Your task to perform on an android device: Open Chrome and go to the settings page Image 0: 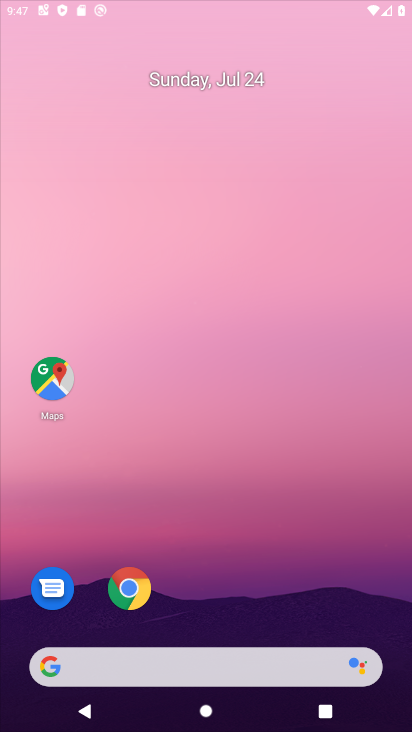
Step 0: click (254, 436)
Your task to perform on an android device: Open Chrome and go to the settings page Image 1: 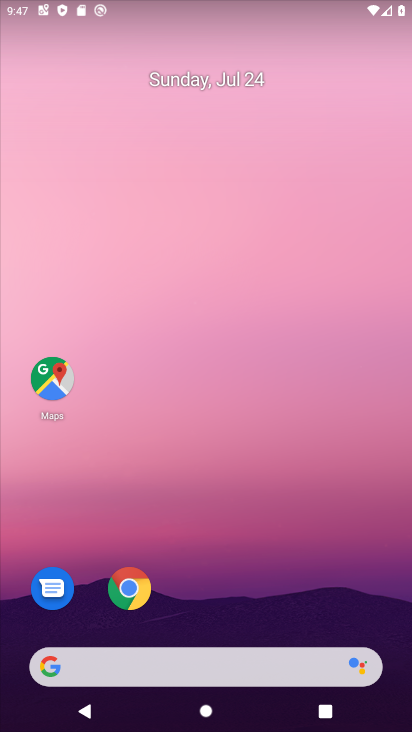
Step 1: drag from (265, 666) to (226, 266)
Your task to perform on an android device: Open Chrome and go to the settings page Image 2: 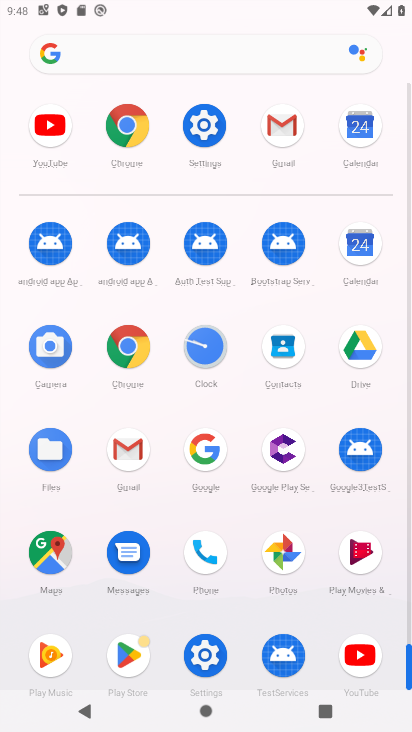
Step 2: click (126, 135)
Your task to perform on an android device: Open Chrome and go to the settings page Image 3: 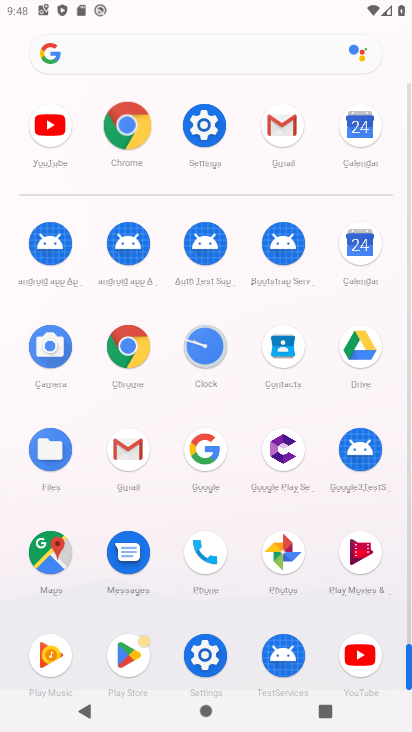
Step 3: click (153, 166)
Your task to perform on an android device: Open Chrome and go to the settings page Image 4: 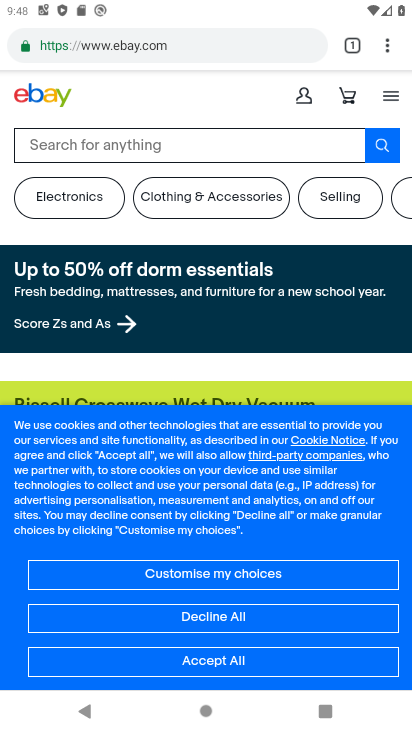
Step 4: drag from (387, 49) to (213, 556)
Your task to perform on an android device: Open Chrome and go to the settings page Image 5: 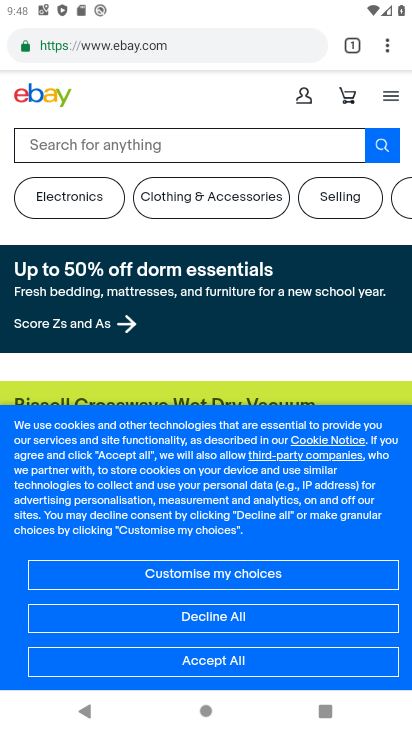
Step 5: click (215, 558)
Your task to perform on an android device: Open Chrome and go to the settings page Image 6: 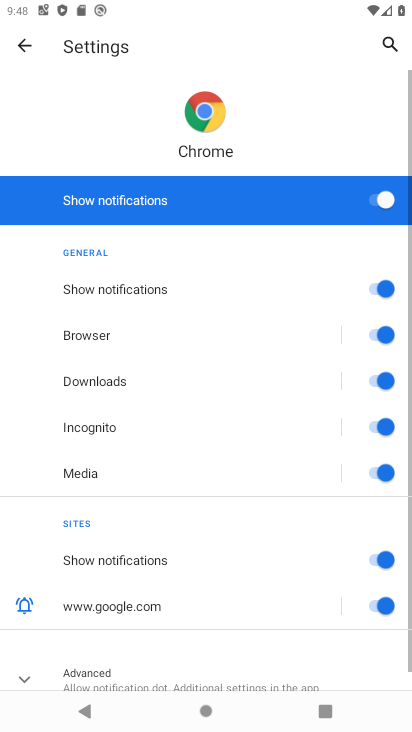
Step 6: task complete